Your task to perform on an android device: Open Yahoo.com Image 0: 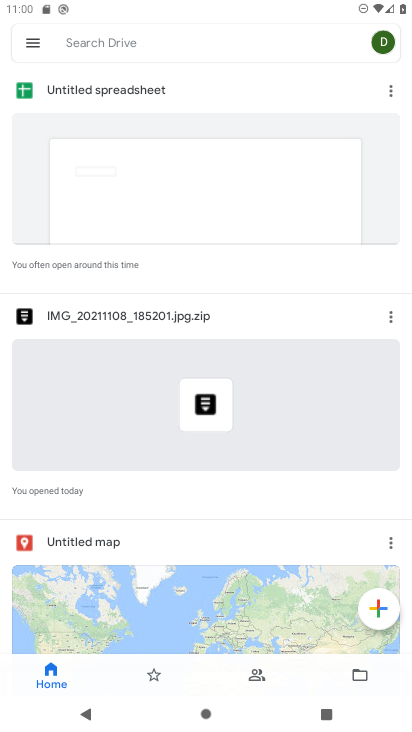
Step 0: press home button
Your task to perform on an android device: Open Yahoo.com Image 1: 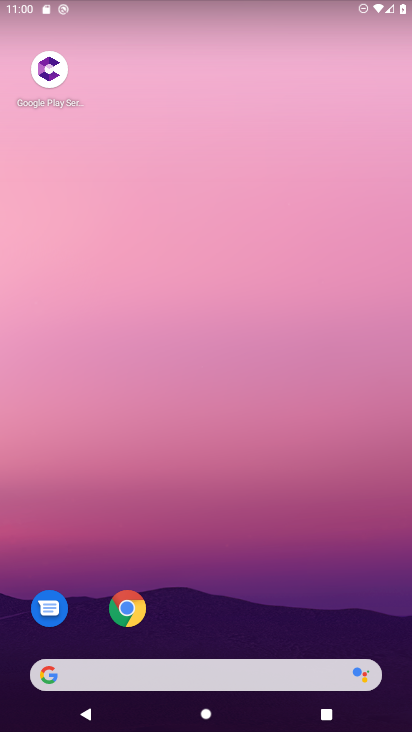
Step 1: drag from (360, 533) to (336, 91)
Your task to perform on an android device: Open Yahoo.com Image 2: 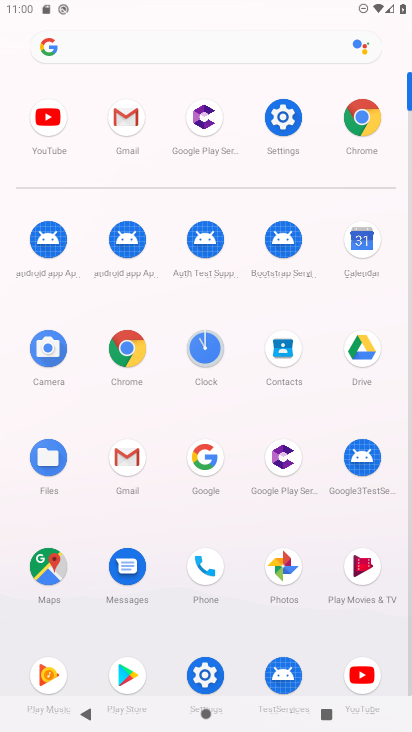
Step 2: click (141, 357)
Your task to perform on an android device: Open Yahoo.com Image 3: 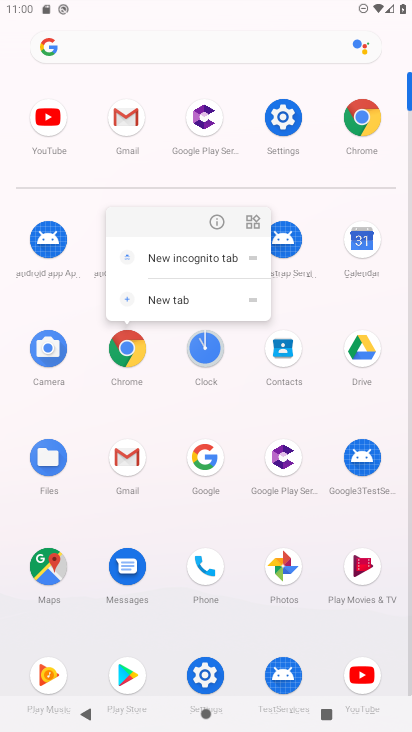
Step 3: click (140, 356)
Your task to perform on an android device: Open Yahoo.com Image 4: 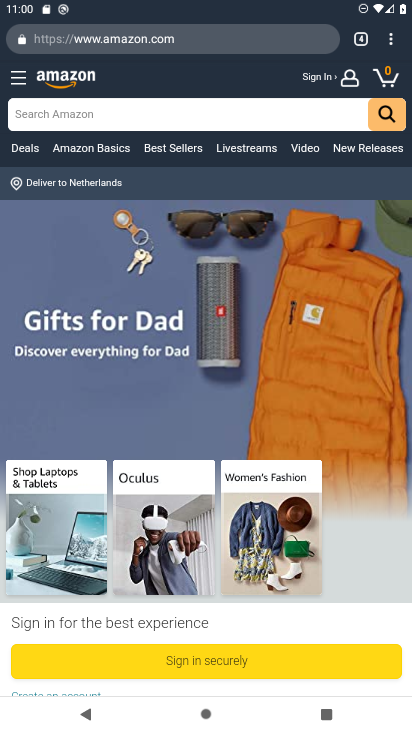
Step 4: click (188, 42)
Your task to perform on an android device: Open Yahoo.com Image 5: 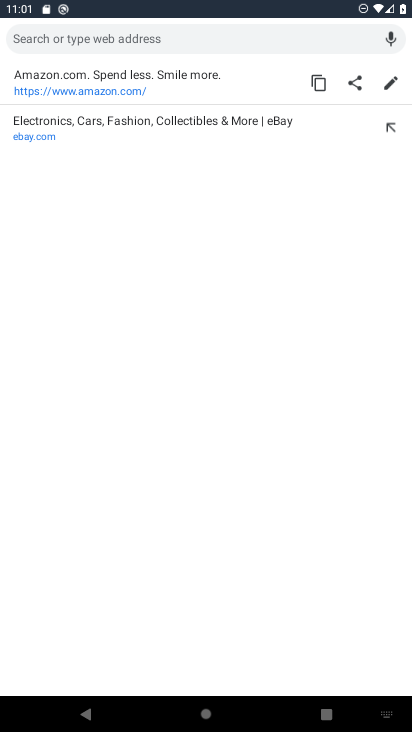
Step 5: type "yahoo.com"
Your task to perform on an android device: Open Yahoo.com Image 6: 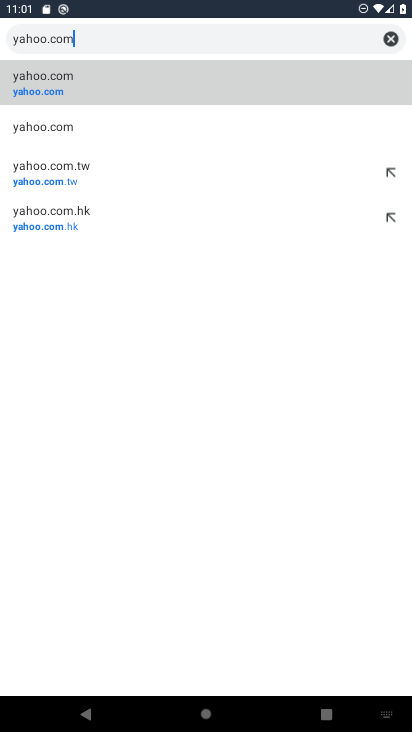
Step 6: click (155, 92)
Your task to perform on an android device: Open Yahoo.com Image 7: 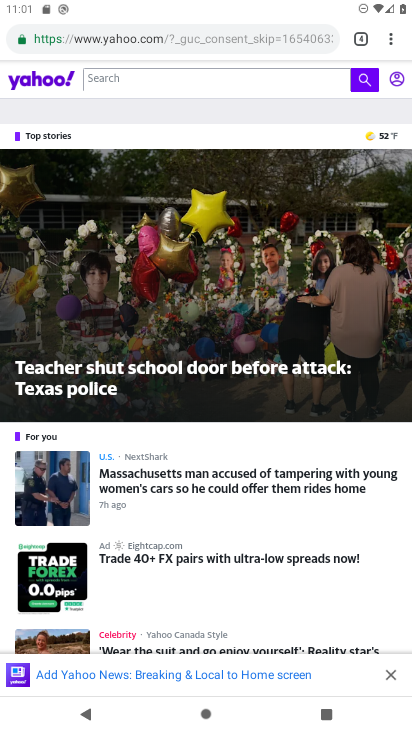
Step 7: task complete